Your task to perform on an android device: Empty the shopping cart on costco. Add "lg ultragear" to the cart on costco Image 0: 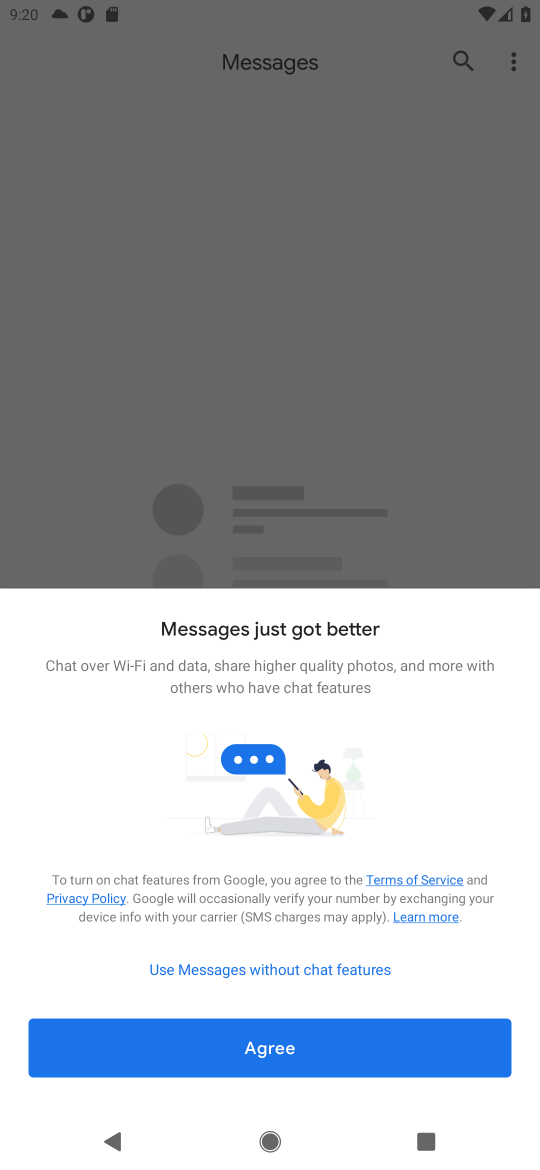
Step 0: press home button
Your task to perform on an android device: Empty the shopping cart on costco. Add "lg ultragear" to the cart on costco Image 1: 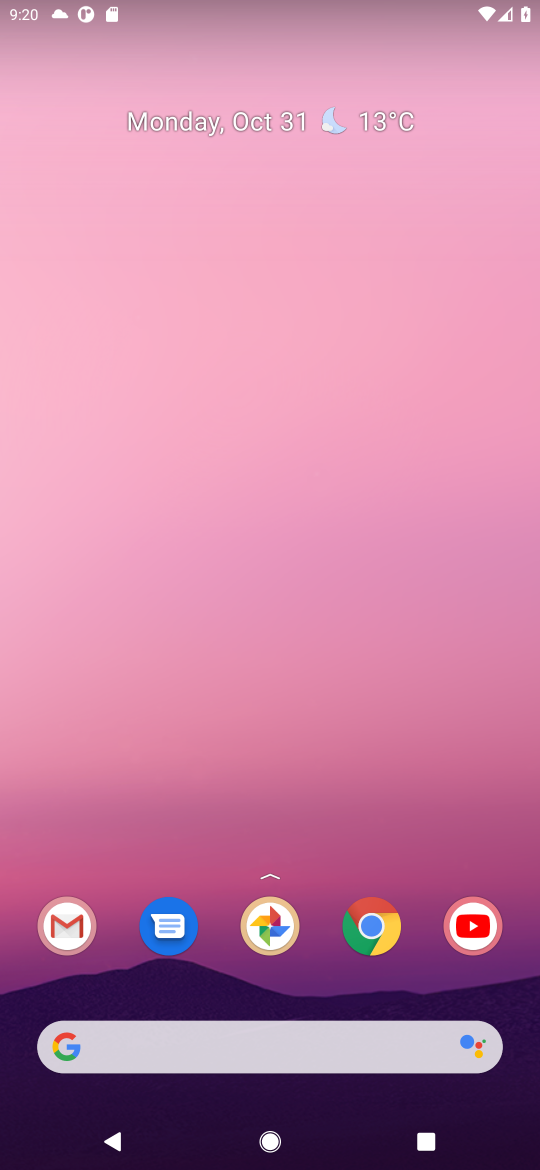
Step 1: click (365, 935)
Your task to perform on an android device: Empty the shopping cart on costco. Add "lg ultragear" to the cart on costco Image 2: 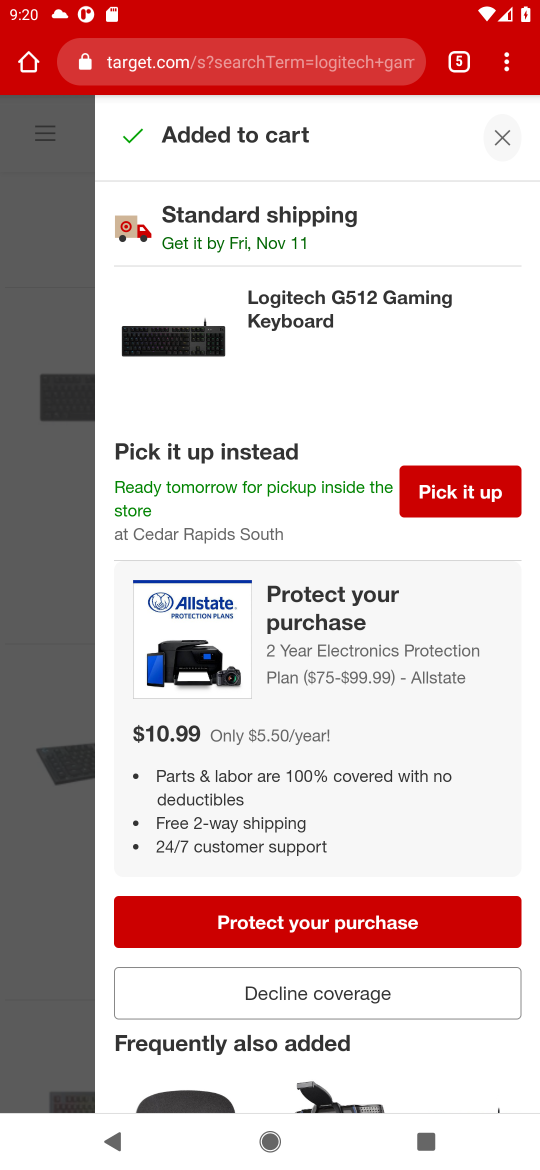
Step 2: click (457, 62)
Your task to perform on an android device: Empty the shopping cart on costco. Add "lg ultragear" to the cart on costco Image 3: 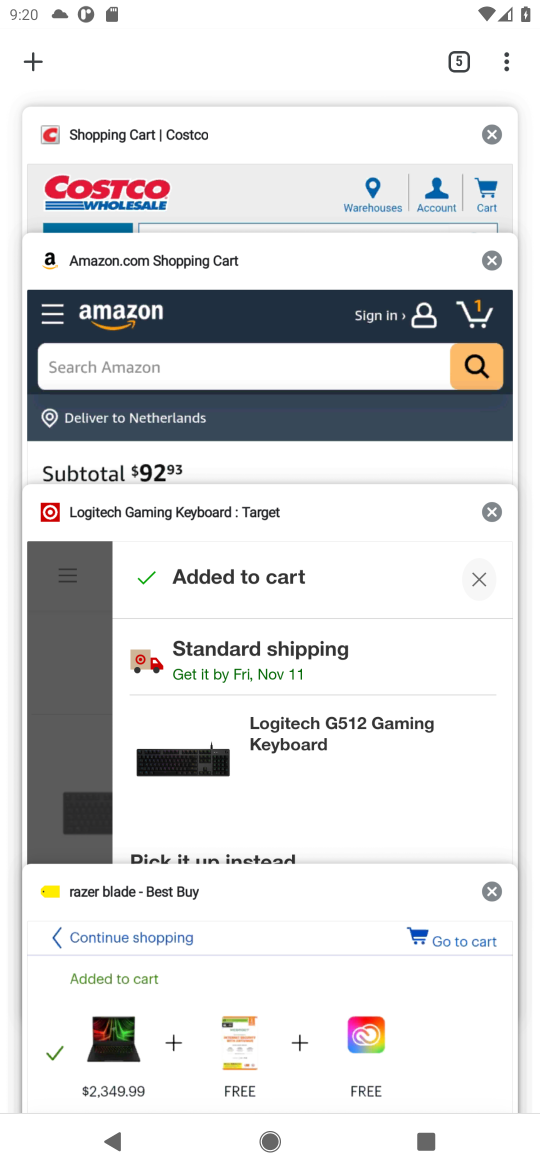
Step 3: click (297, 170)
Your task to perform on an android device: Empty the shopping cart on costco. Add "lg ultragear" to the cart on costco Image 4: 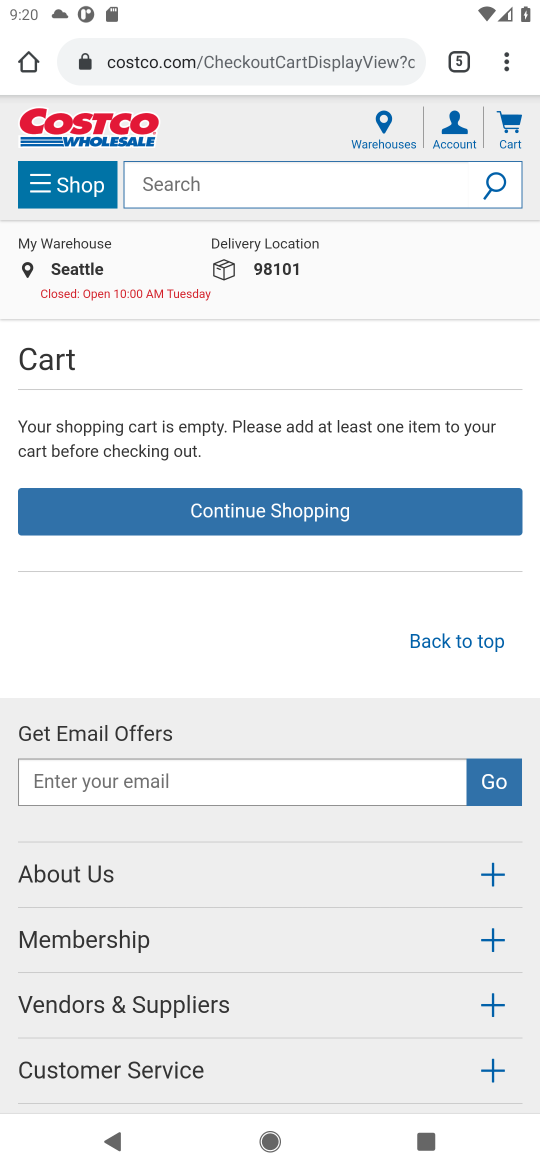
Step 4: click (298, 196)
Your task to perform on an android device: Empty the shopping cart on costco. Add "lg ultragear" to the cart on costco Image 5: 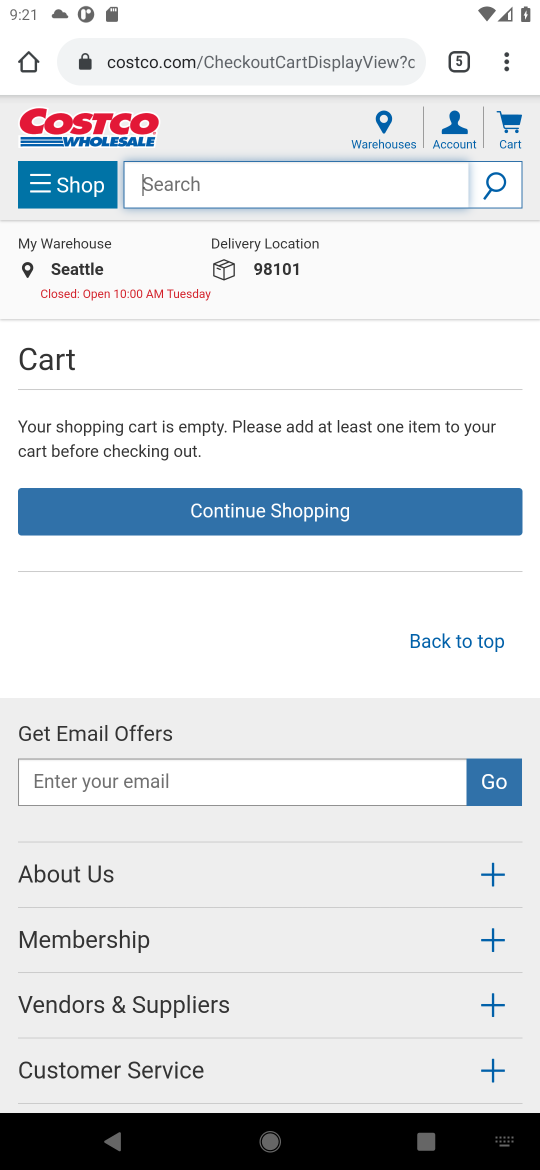
Step 5: type "lg ultragear"
Your task to perform on an android device: Empty the shopping cart on costco. Add "lg ultragear" to the cart on costco Image 6: 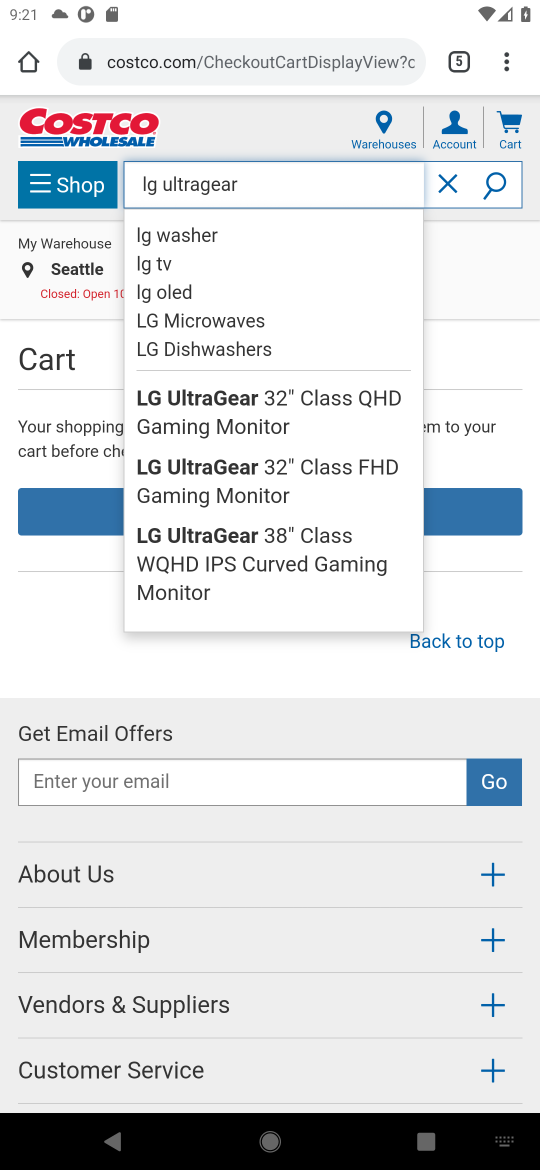
Step 6: click (245, 401)
Your task to perform on an android device: Empty the shopping cart on costco. Add "lg ultragear" to the cart on costco Image 7: 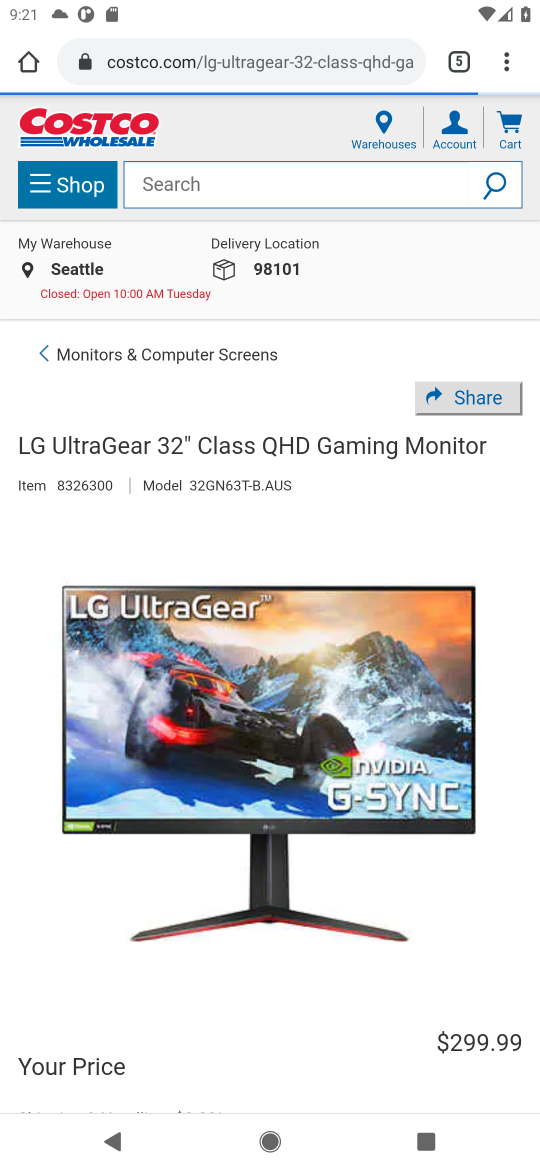
Step 7: drag from (325, 1036) to (354, 354)
Your task to perform on an android device: Empty the shopping cart on costco. Add "lg ultragear" to the cart on costco Image 8: 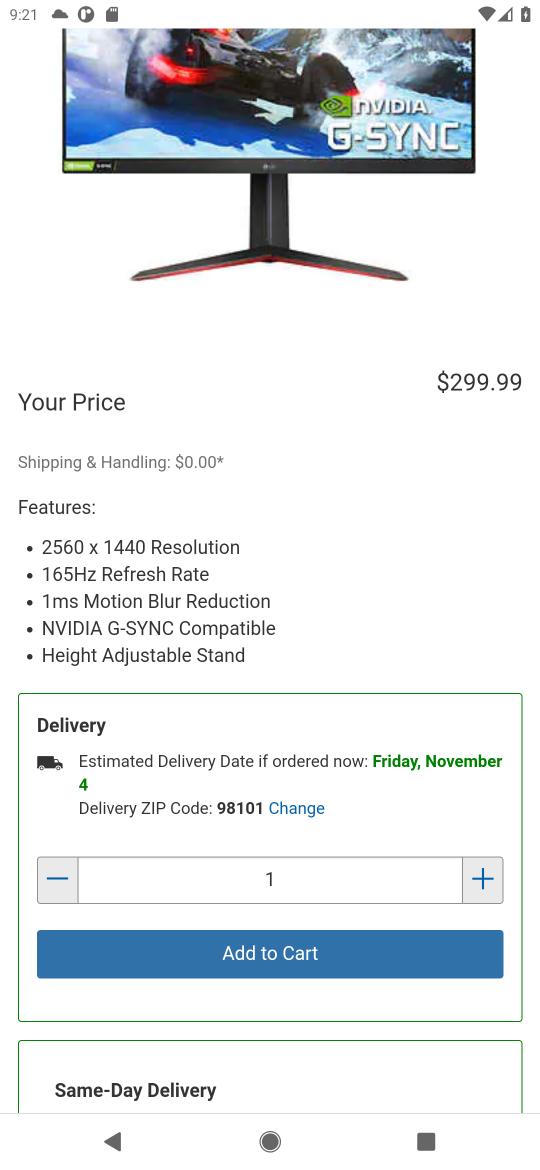
Step 8: click (326, 966)
Your task to perform on an android device: Empty the shopping cart on costco. Add "lg ultragear" to the cart on costco Image 9: 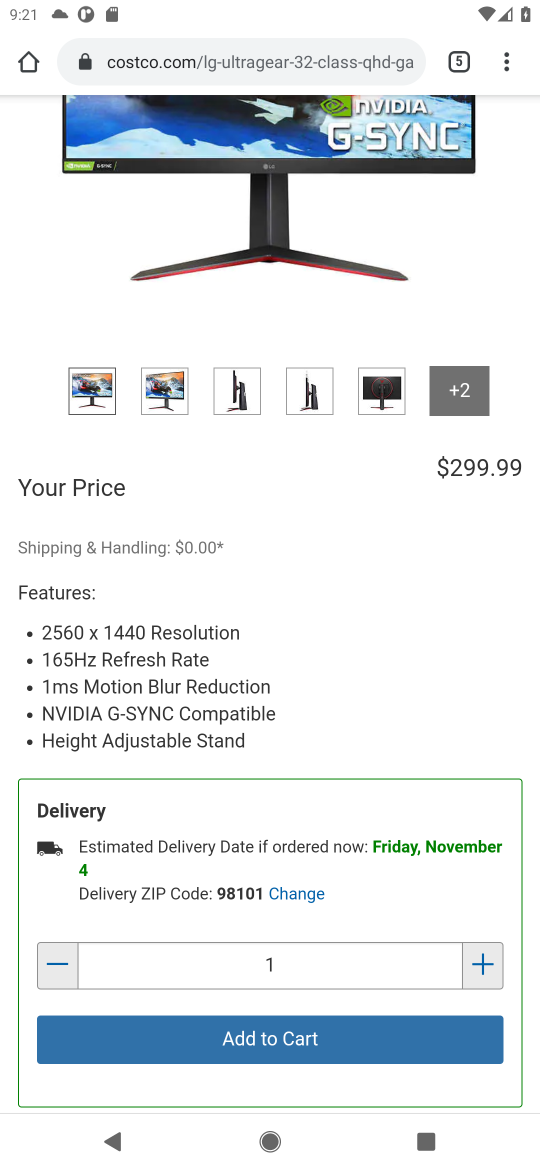
Step 9: click (301, 1041)
Your task to perform on an android device: Empty the shopping cart on costco. Add "lg ultragear" to the cart on costco Image 10: 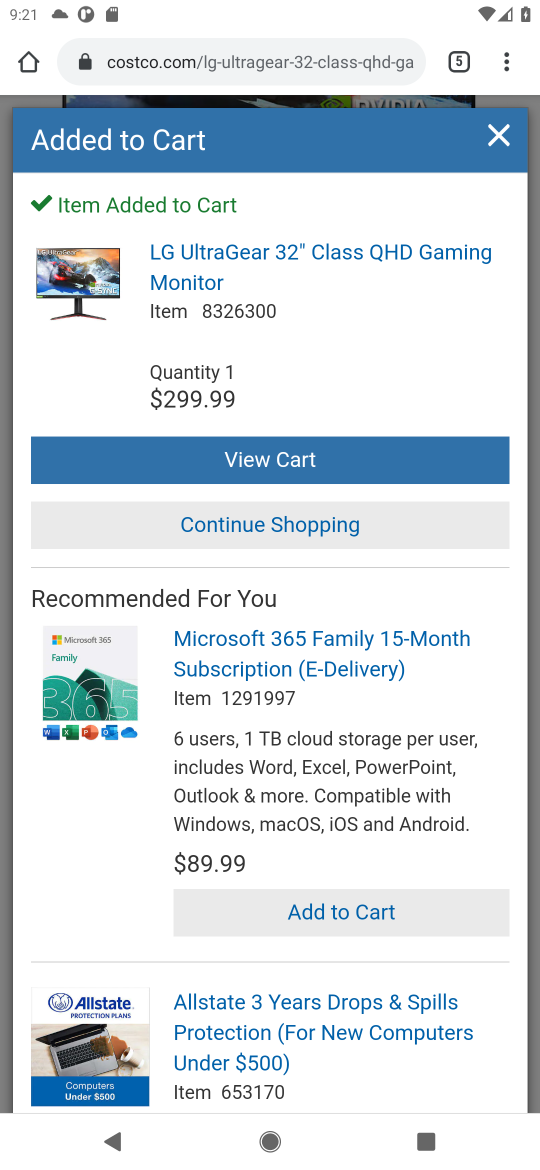
Step 10: task complete